Your task to perform on an android device: star an email in the gmail app Image 0: 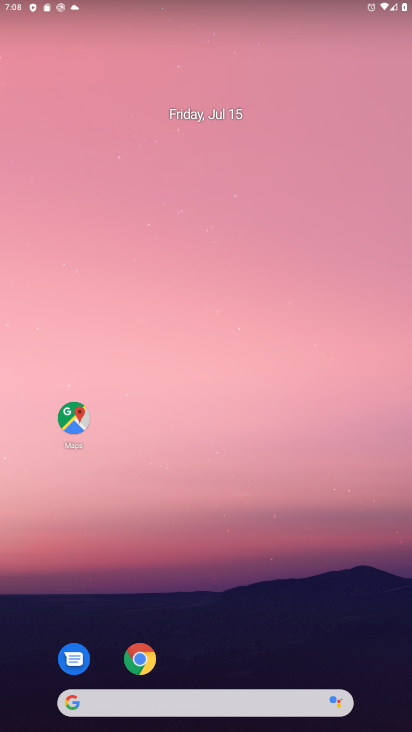
Step 0: drag from (359, 640) to (294, 255)
Your task to perform on an android device: star an email in the gmail app Image 1: 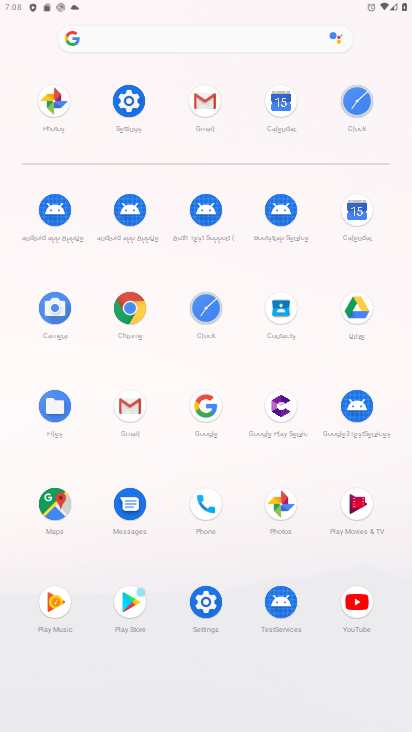
Step 1: click (127, 406)
Your task to perform on an android device: star an email in the gmail app Image 2: 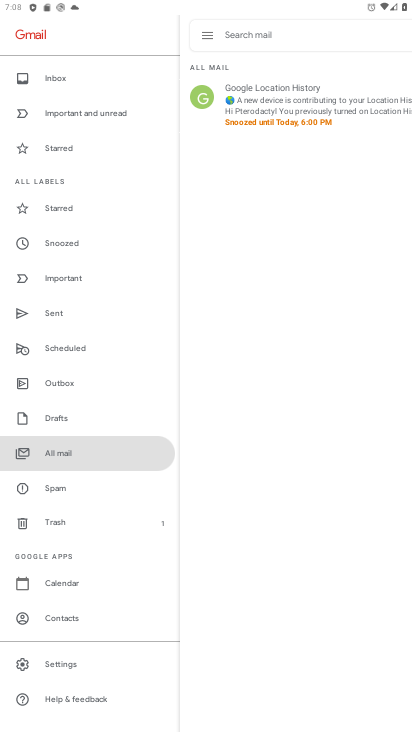
Step 2: click (300, 96)
Your task to perform on an android device: star an email in the gmail app Image 3: 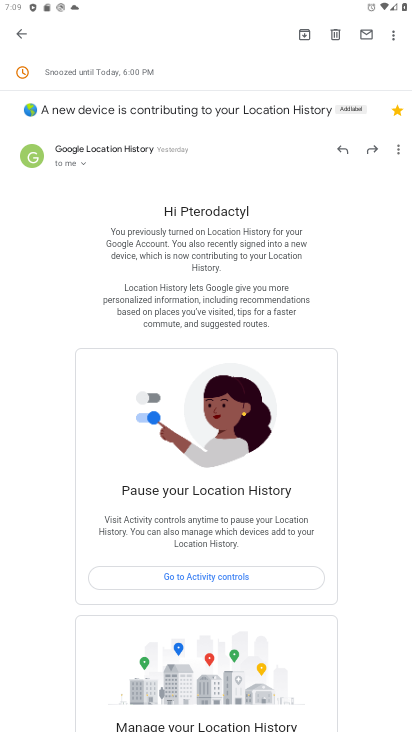
Step 3: task complete